Your task to perform on an android device: Go to Wikipedia Image 0: 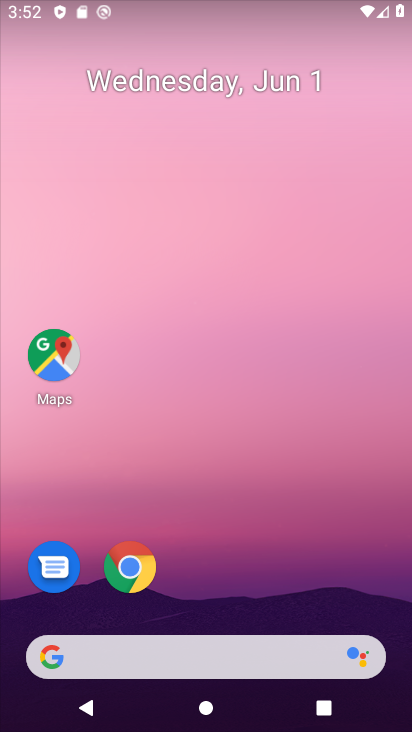
Step 0: click (124, 580)
Your task to perform on an android device: Go to Wikipedia Image 1: 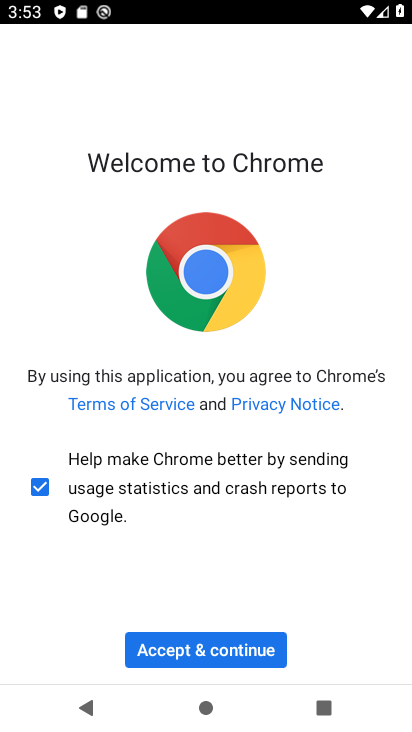
Step 1: click (260, 649)
Your task to perform on an android device: Go to Wikipedia Image 2: 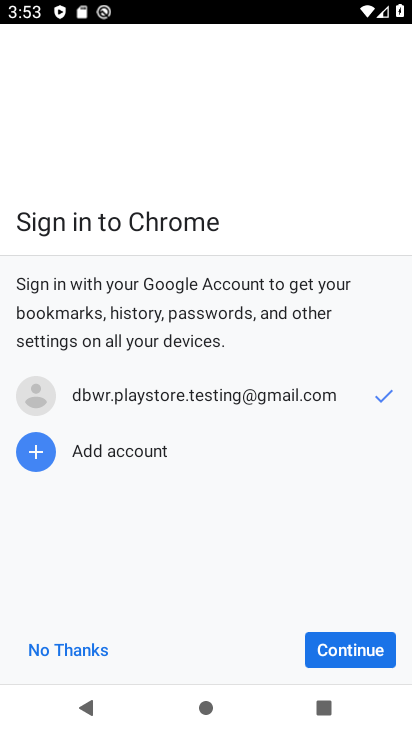
Step 2: click (366, 649)
Your task to perform on an android device: Go to Wikipedia Image 3: 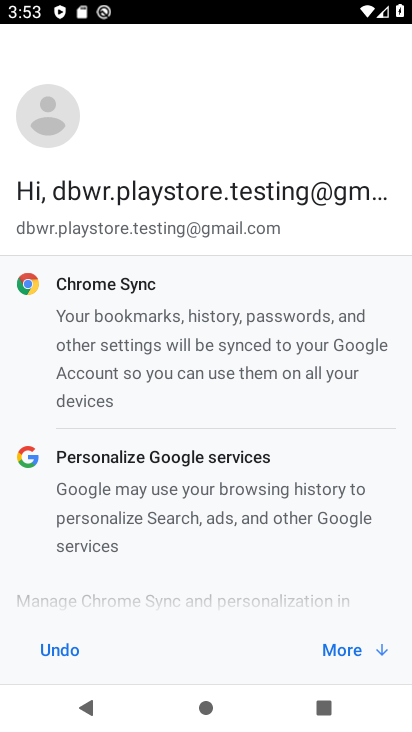
Step 3: click (367, 650)
Your task to perform on an android device: Go to Wikipedia Image 4: 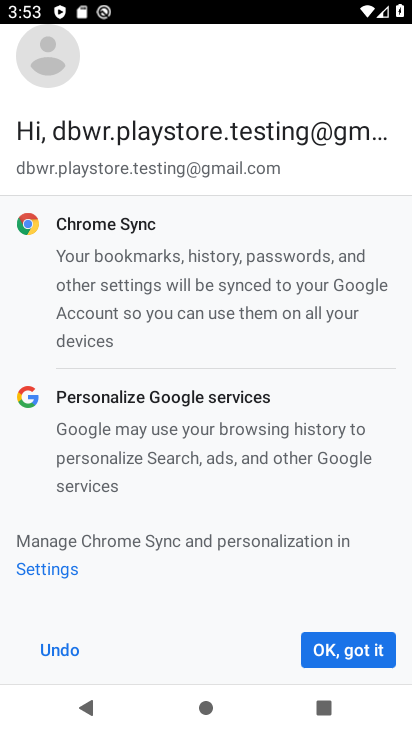
Step 4: click (367, 650)
Your task to perform on an android device: Go to Wikipedia Image 5: 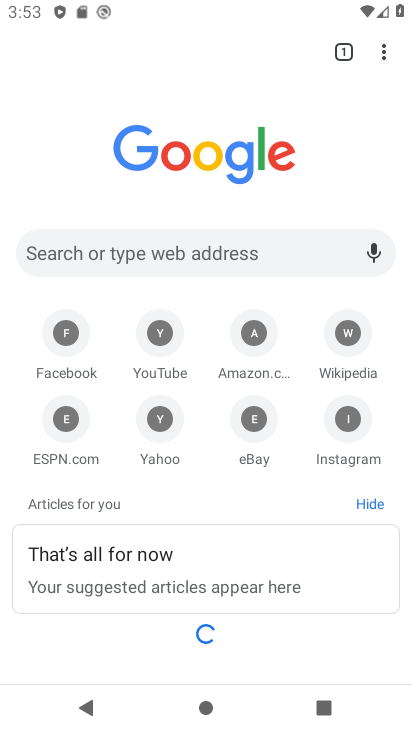
Step 5: click (346, 346)
Your task to perform on an android device: Go to Wikipedia Image 6: 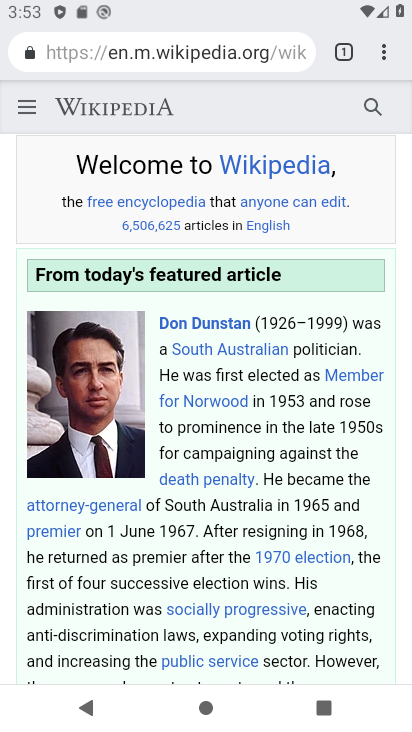
Step 6: task complete